Your task to perform on an android device: Find coffee shops on Maps Image 0: 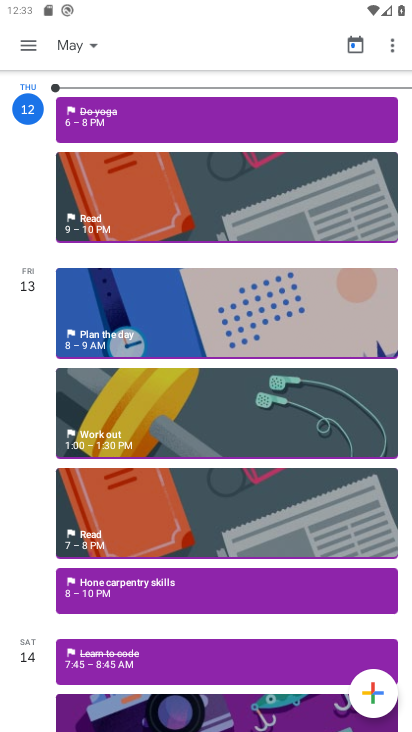
Step 0: press home button
Your task to perform on an android device: Find coffee shops on Maps Image 1: 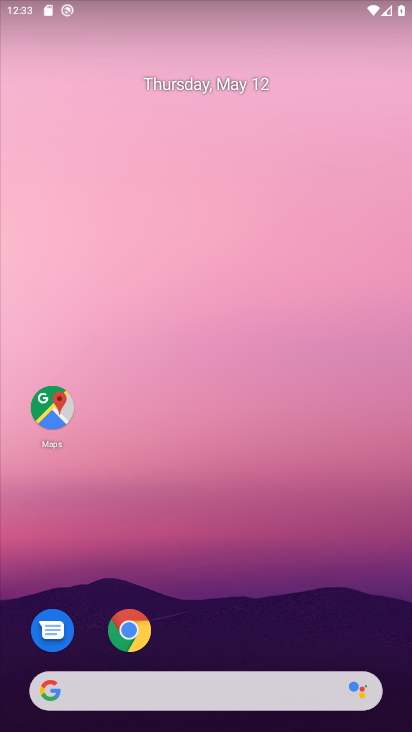
Step 1: drag from (281, 202) to (283, 56)
Your task to perform on an android device: Find coffee shops on Maps Image 2: 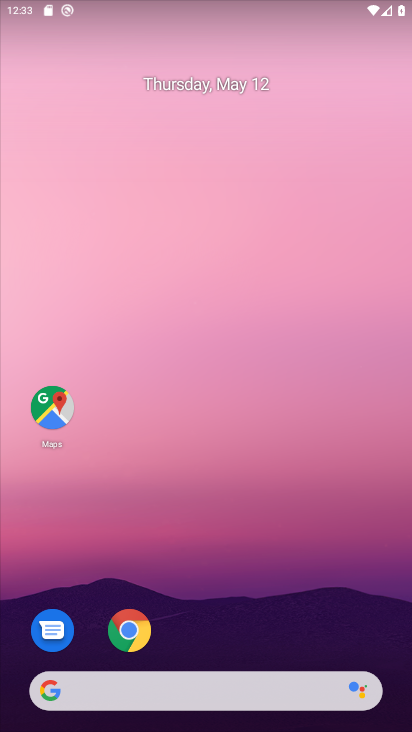
Step 2: drag from (239, 613) to (280, 36)
Your task to perform on an android device: Find coffee shops on Maps Image 3: 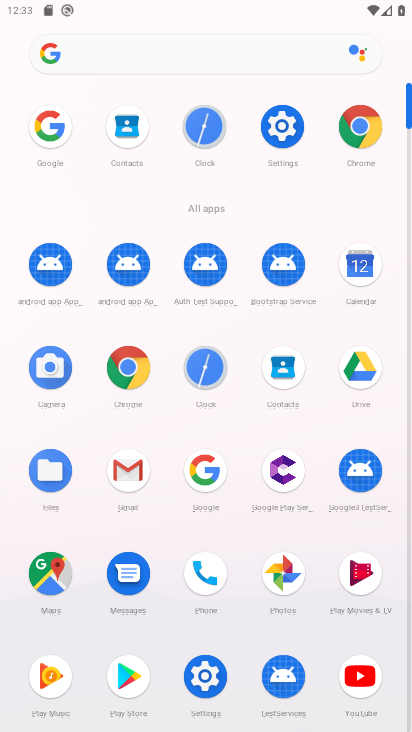
Step 3: click (44, 570)
Your task to perform on an android device: Find coffee shops on Maps Image 4: 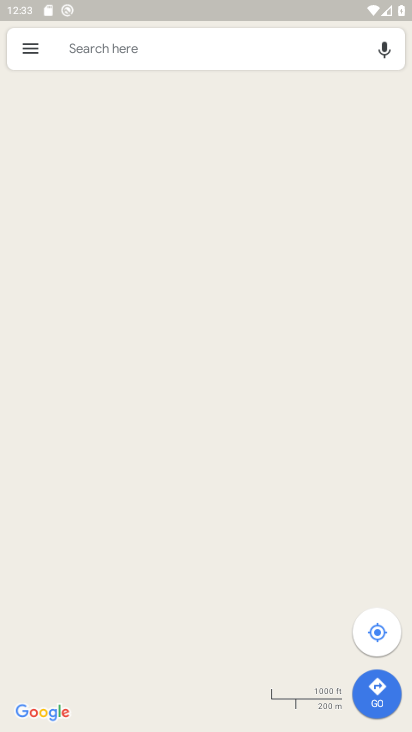
Step 4: click (117, 57)
Your task to perform on an android device: Find coffee shops on Maps Image 5: 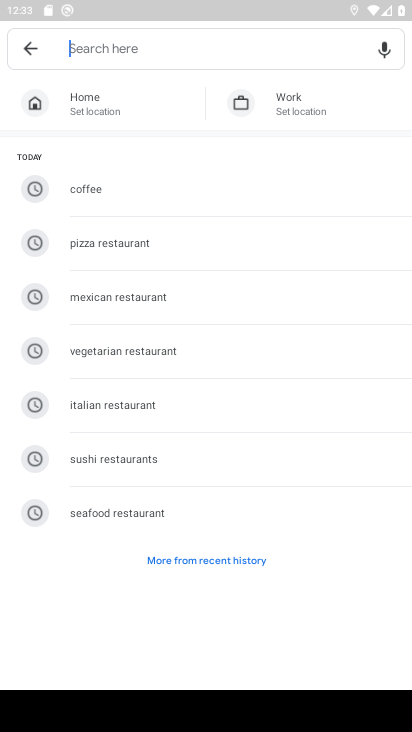
Step 5: type "coffee shops on"
Your task to perform on an android device: Find coffee shops on Maps Image 6: 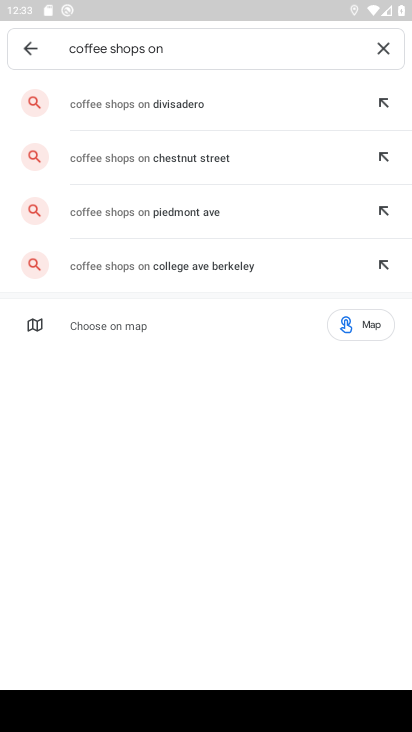
Step 6: click (385, 53)
Your task to perform on an android device: Find coffee shops on Maps Image 7: 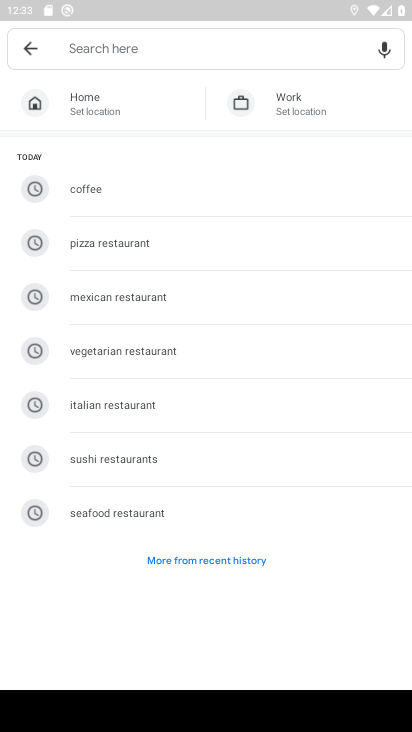
Step 7: type "coffee shops "
Your task to perform on an android device: Find coffee shops on Maps Image 8: 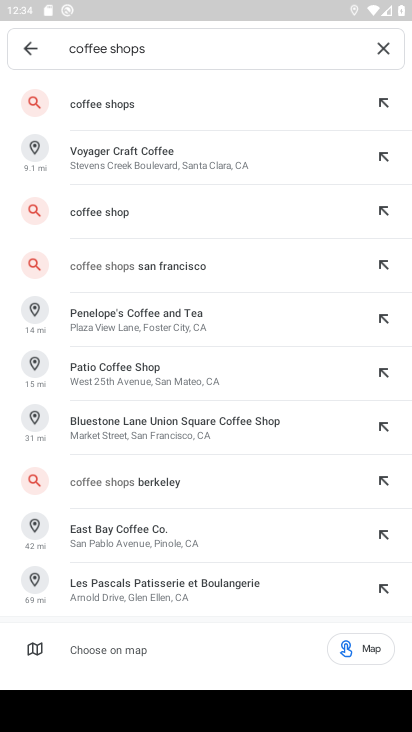
Step 8: click (109, 103)
Your task to perform on an android device: Find coffee shops on Maps Image 9: 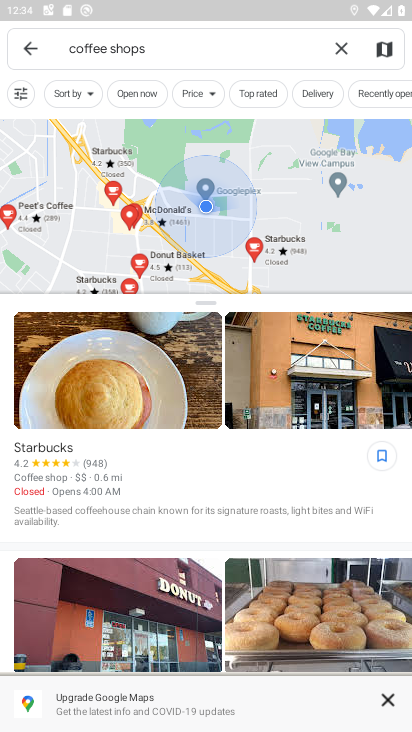
Step 9: task complete